Your task to perform on an android device: star an email in the gmail app Image 0: 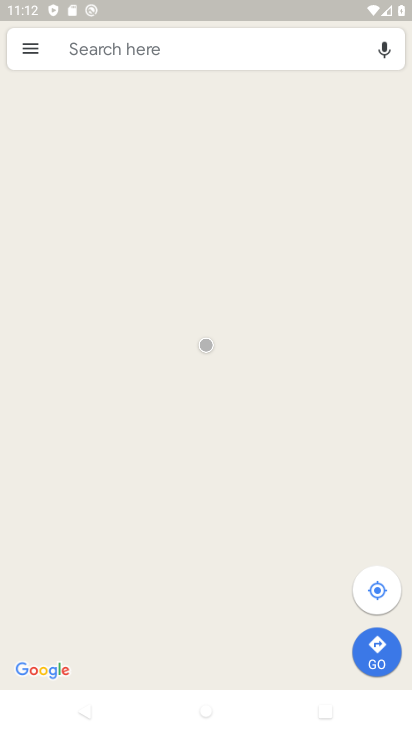
Step 0: press home button
Your task to perform on an android device: star an email in the gmail app Image 1: 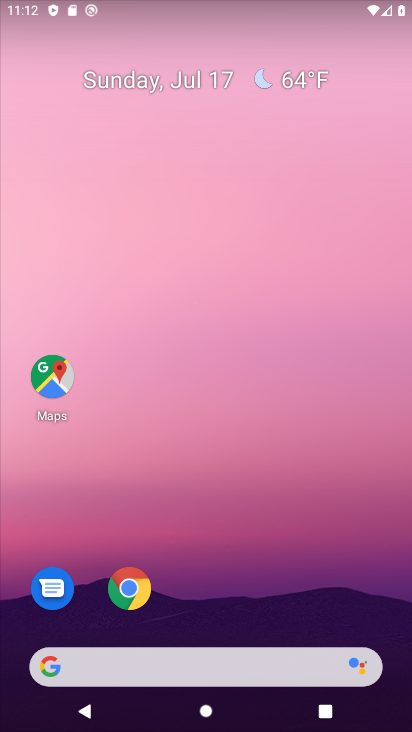
Step 1: drag from (185, 675) to (179, 185)
Your task to perform on an android device: star an email in the gmail app Image 2: 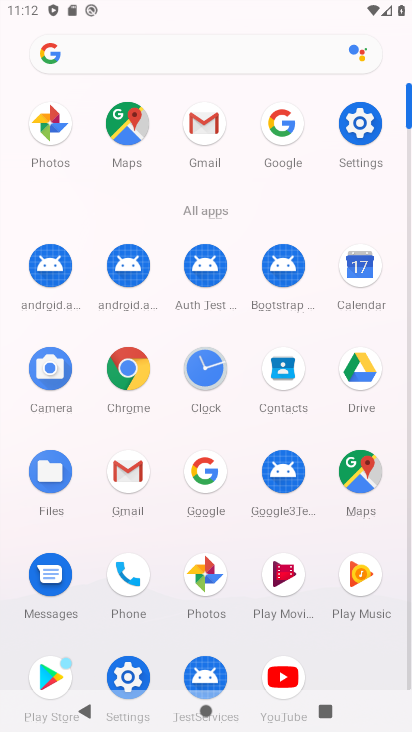
Step 2: click (128, 479)
Your task to perform on an android device: star an email in the gmail app Image 3: 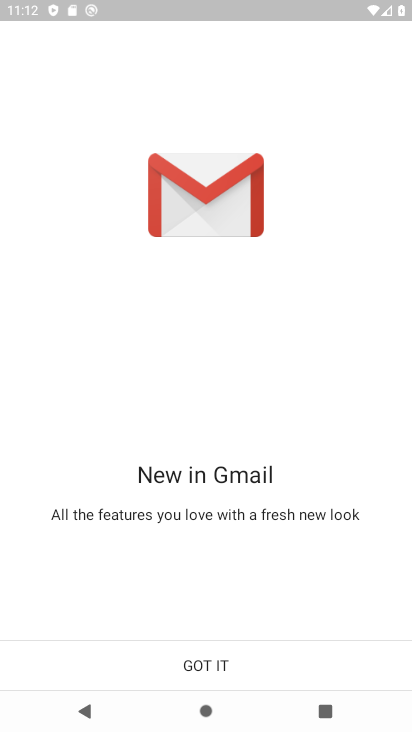
Step 3: click (220, 666)
Your task to perform on an android device: star an email in the gmail app Image 4: 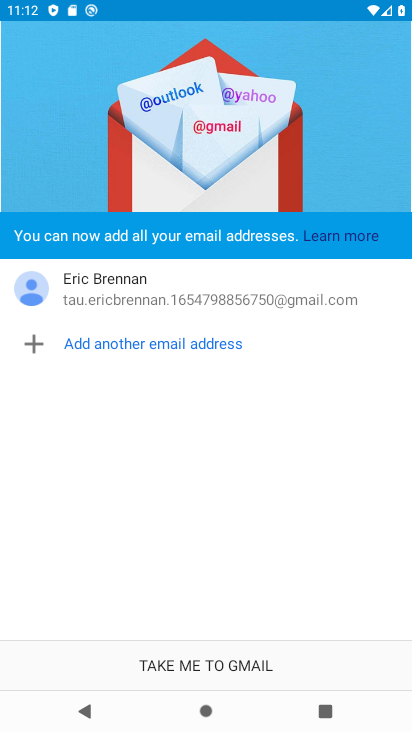
Step 4: click (220, 666)
Your task to perform on an android device: star an email in the gmail app Image 5: 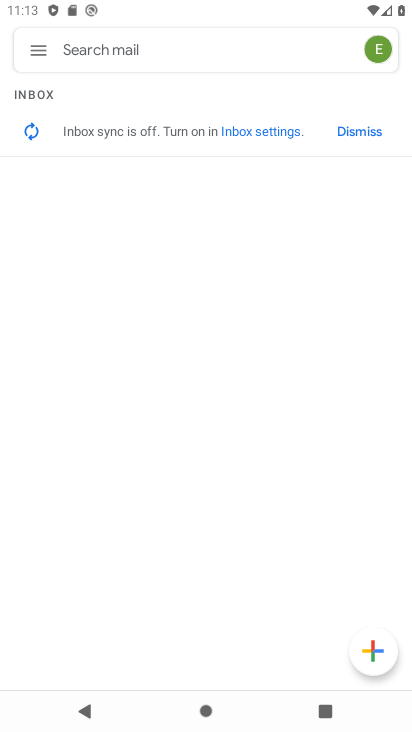
Step 5: click (40, 32)
Your task to perform on an android device: star an email in the gmail app Image 6: 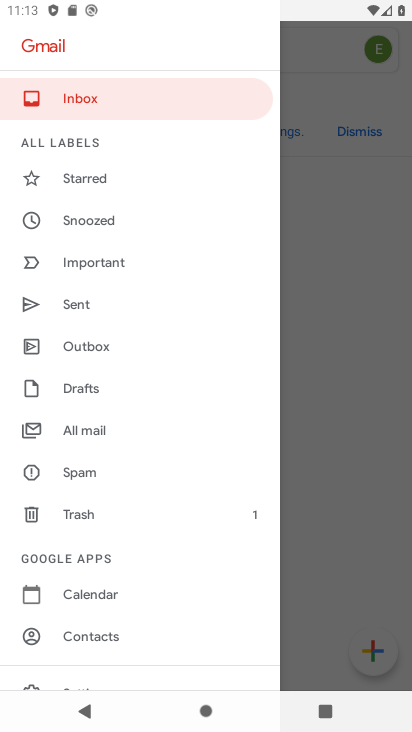
Step 6: click (65, 430)
Your task to perform on an android device: star an email in the gmail app Image 7: 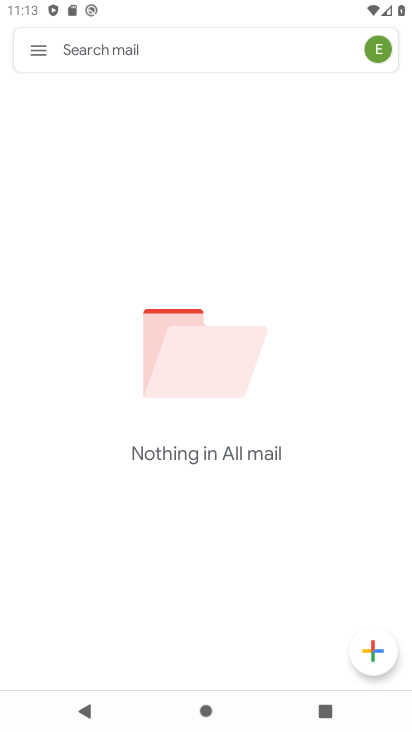
Step 7: task complete